Your task to perform on an android device: find photos in the google photos app Image 0: 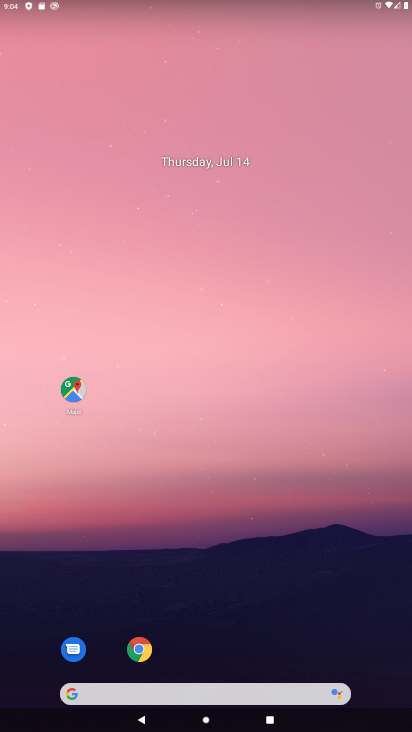
Step 0: drag from (68, 666) to (163, 62)
Your task to perform on an android device: find photos in the google photos app Image 1: 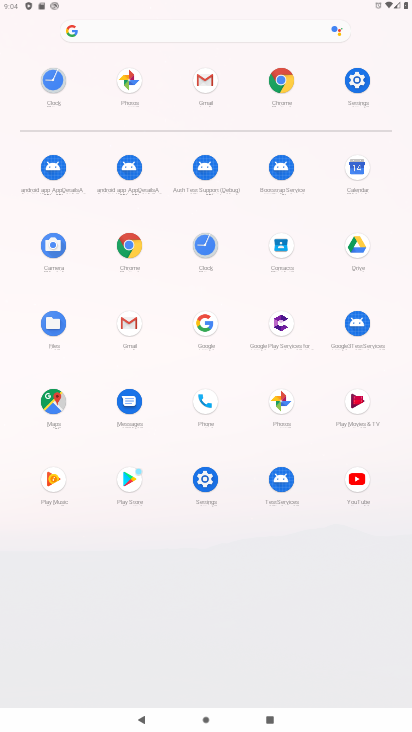
Step 1: click (107, 78)
Your task to perform on an android device: find photos in the google photos app Image 2: 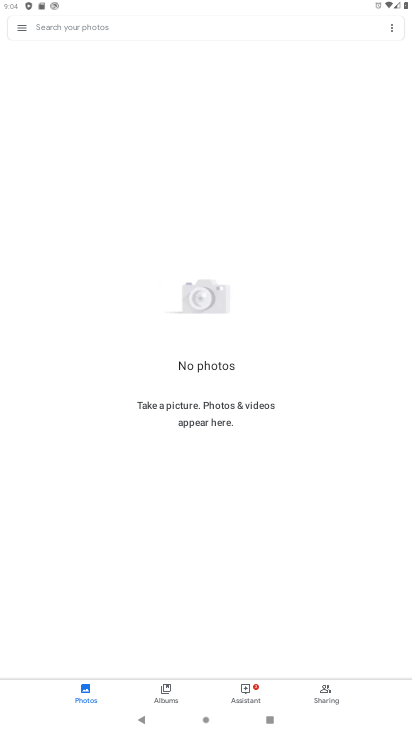
Step 2: task complete